Your task to perform on an android device: Open location settings Image 0: 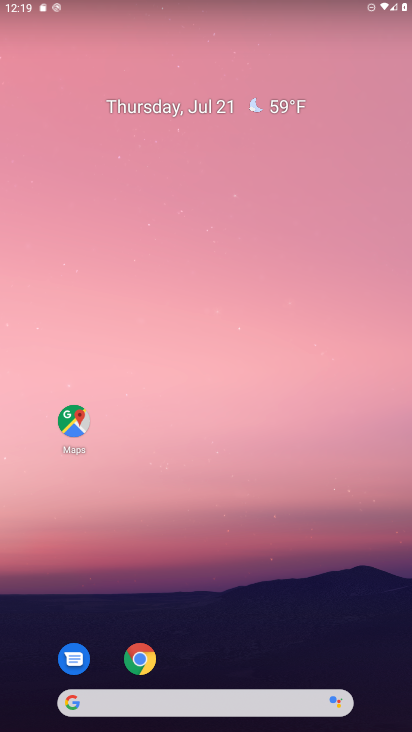
Step 0: press home button
Your task to perform on an android device: Open location settings Image 1: 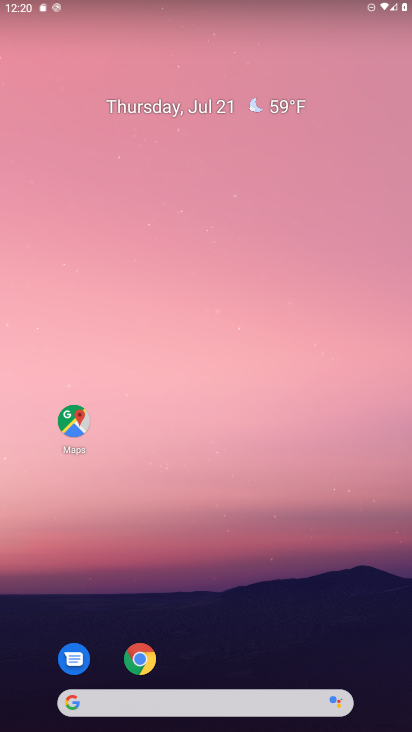
Step 1: drag from (27, 630) to (248, 195)
Your task to perform on an android device: Open location settings Image 2: 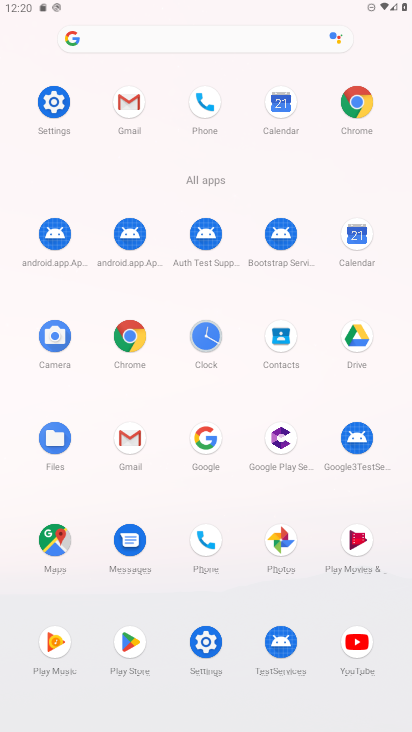
Step 2: click (196, 629)
Your task to perform on an android device: Open location settings Image 3: 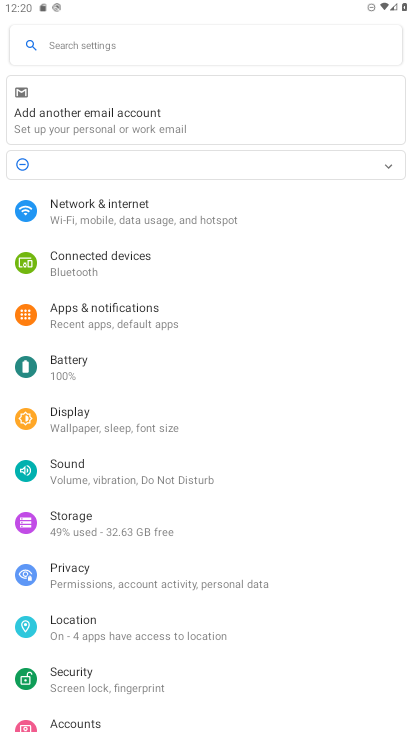
Step 3: click (128, 628)
Your task to perform on an android device: Open location settings Image 4: 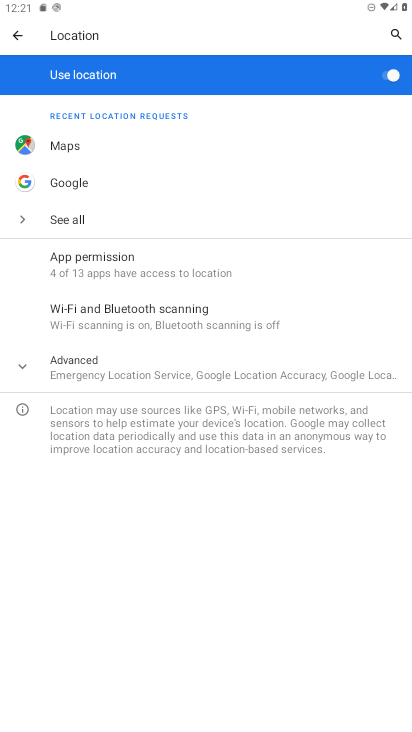
Step 4: task complete